Your task to perform on an android device: turn on bluetooth scan Image 0: 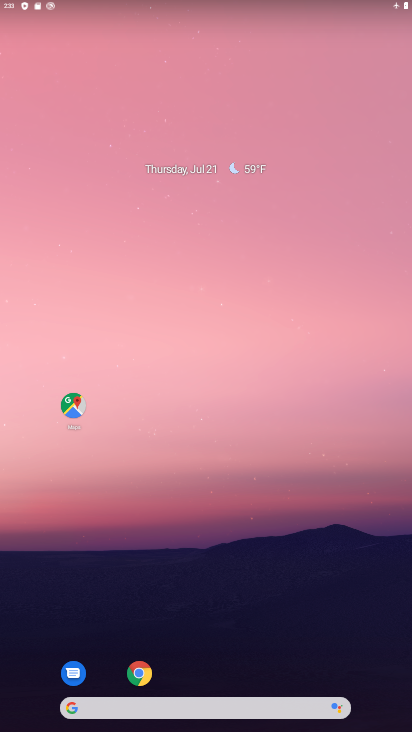
Step 0: press home button
Your task to perform on an android device: turn on bluetooth scan Image 1: 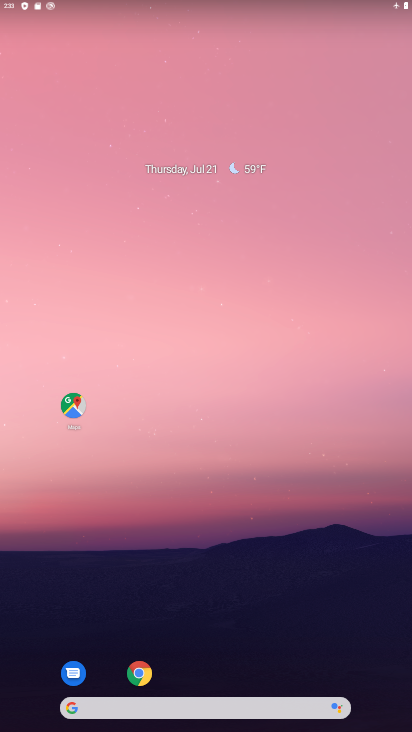
Step 1: drag from (339, 661) to (321, 163)
Your task to perform on an android device: turn on bluetooth scan Image 2: 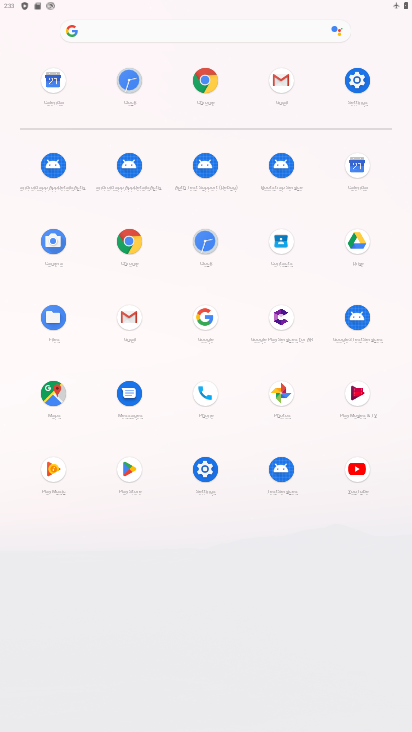
Step 2: click (204, 470)
Your task to perform on an android device: turn on bluetooth scan Image 3: 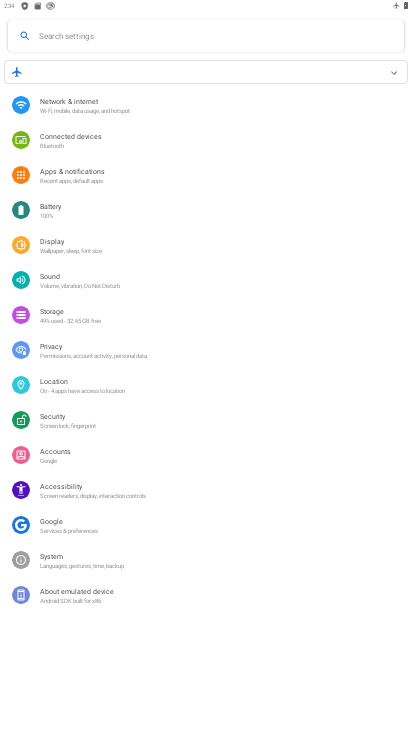
Step 3: click (49, 383)
Your task to perform on an android device: turn on bluetooth scan Image 4: 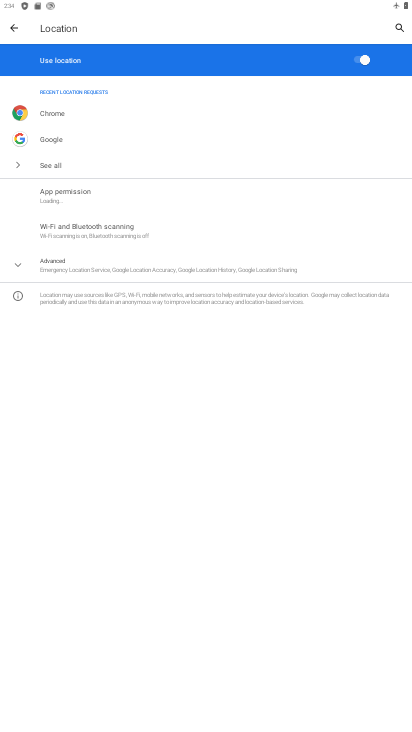
Step 4: click (72, 230)
Your task to perform on an android device: turn on bluetooth scan Image 5: 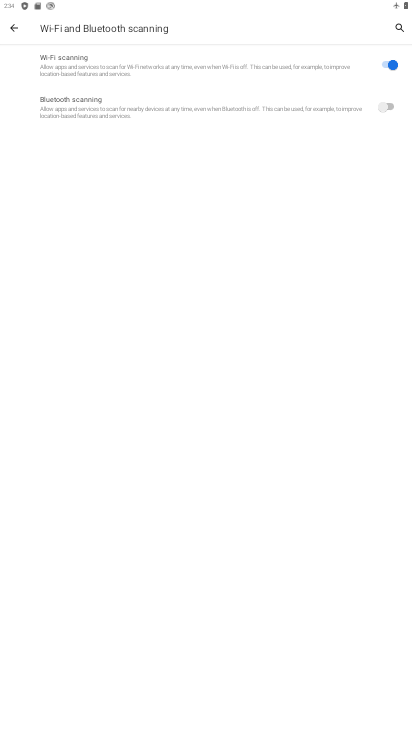
Step 5: click (387, 104)
Your task to perform on an android device: turn on bluetooth scan Image 6: 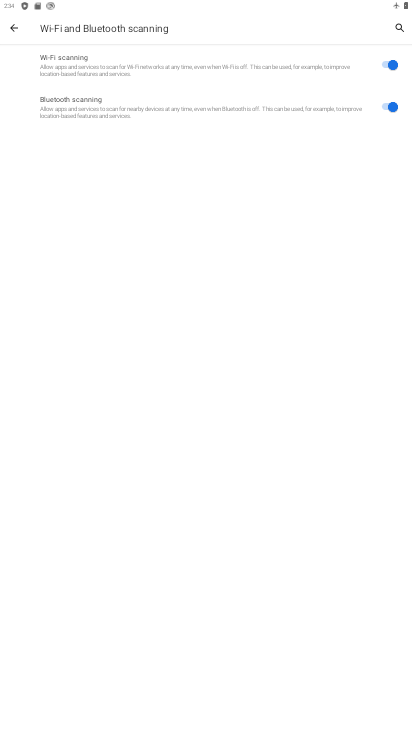
Step 6: task complete